Your task to perform on an android device: Clear all items from cart on walmart.com. Add "asus zenbook" to the cart on walmart.com Image 0: 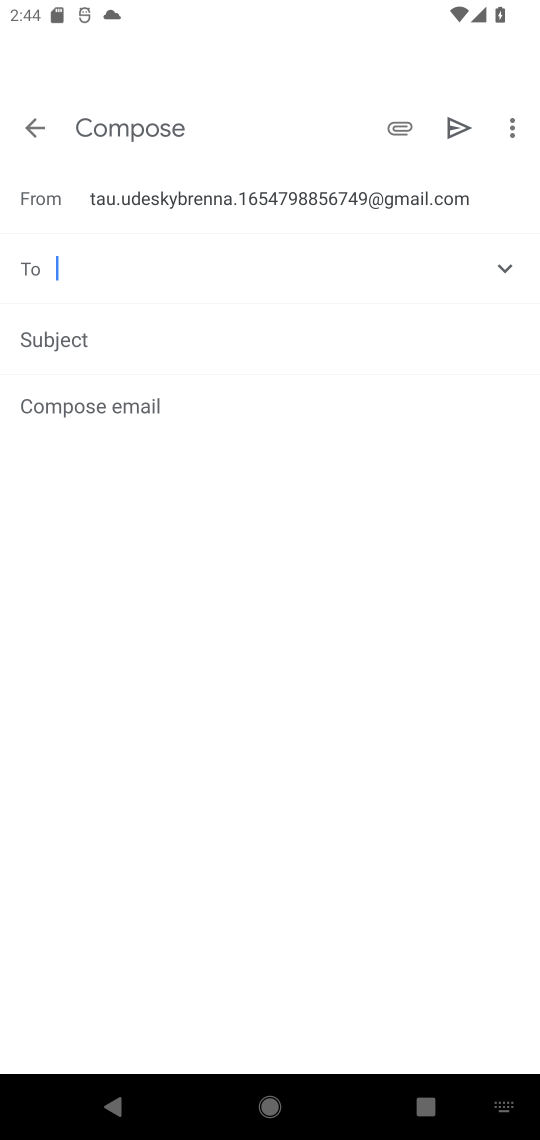
Step 0: press home button
Your task to perform on an android device: Clear all items from cart on walmart.com. Add "asus zenbook" to the cart on walmart.com Image 1: 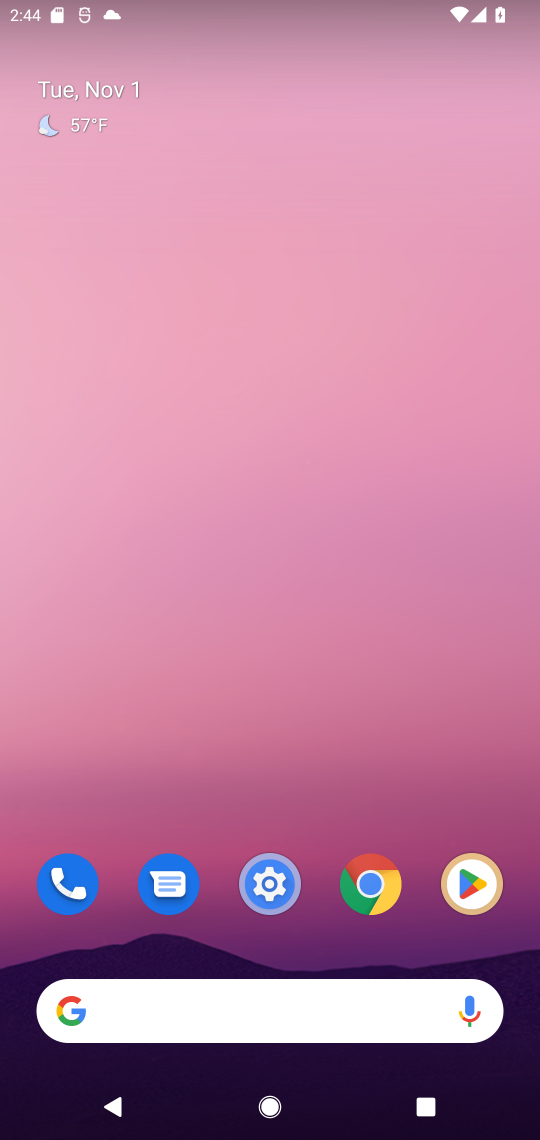
Step 1: click (95, 1003)
Your task to perform on an android device: Clear all items from cart on walmart.com. Add "asus zenbook" to the cart on walmart.com Image 2: 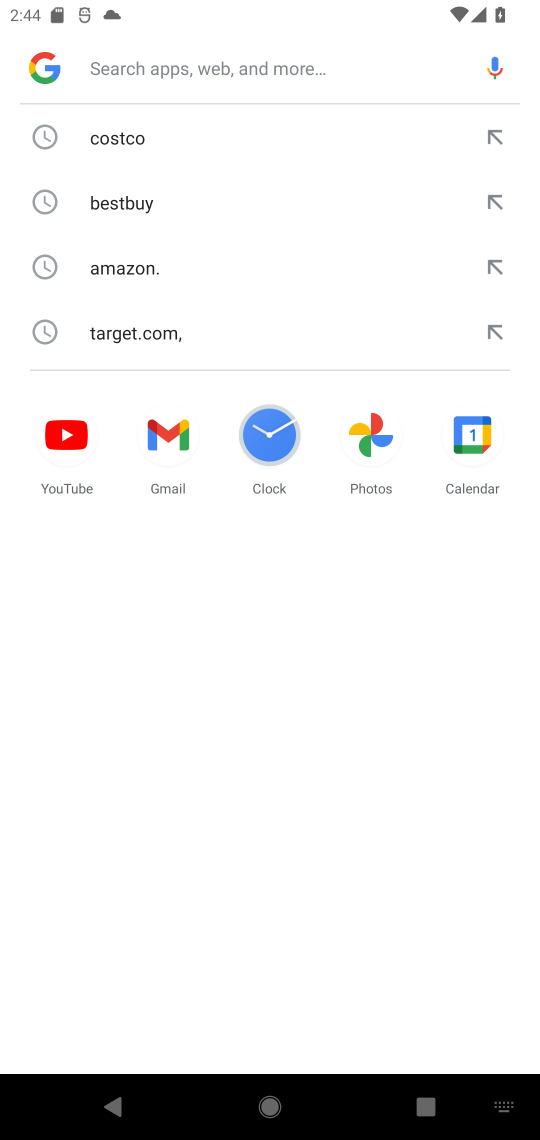
Step 2: type " walmart.com"
Your task to perform on an android device: Clear all items from cart on walmart.com. Add "asus zenbook" to the cart on walmart.com Image 3: 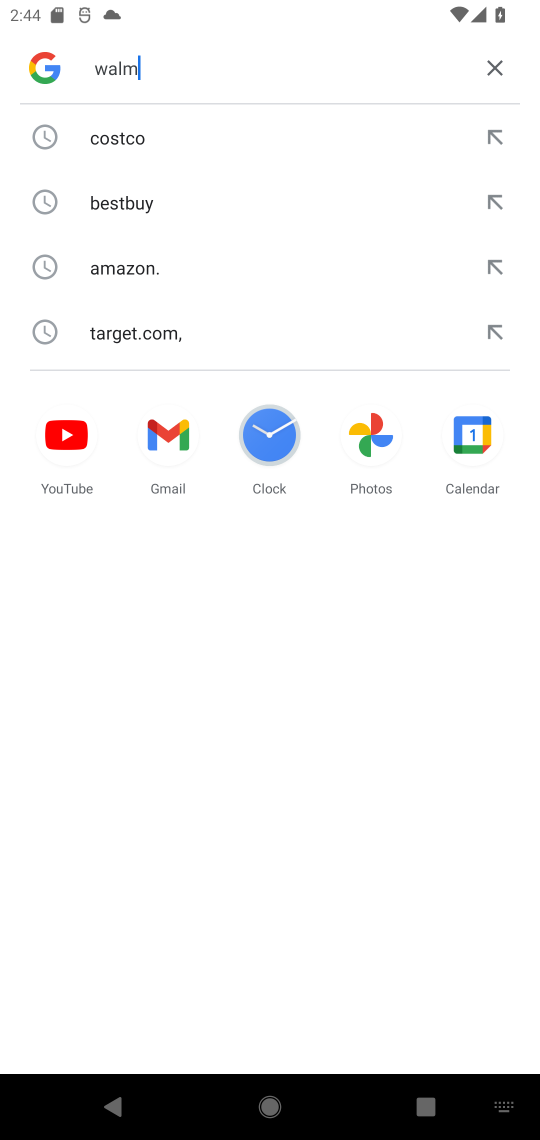
Step 3: press enter
Your task to perform on an android device: Clear all items from cart on walmart.com. Add "asus zenbook" to the cart on walmart.com Image 4: 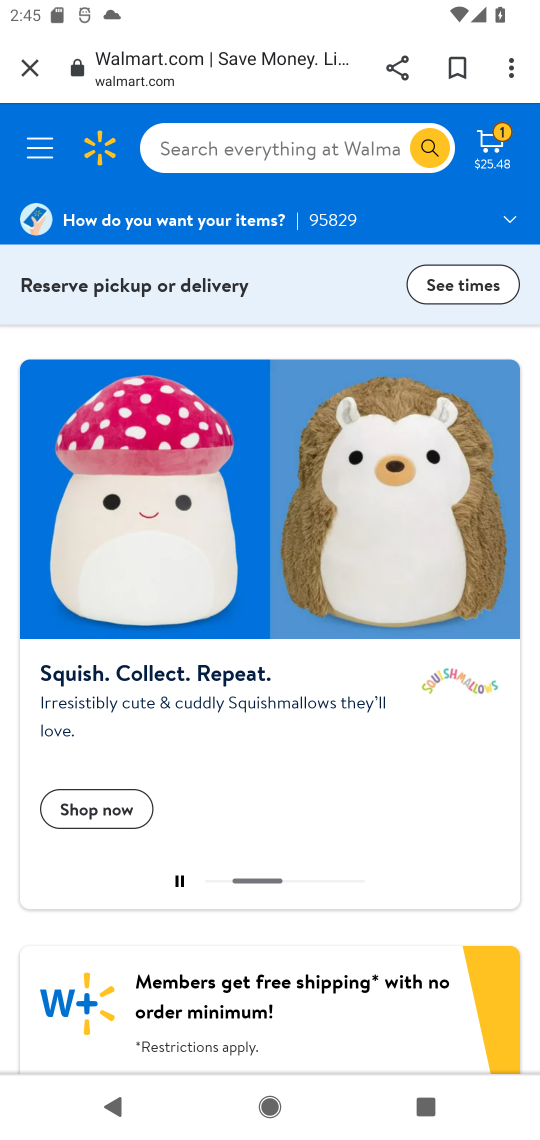
Step 4: click (488, 137)
Your task to perform on an android device: Clear all items from cart on walmart.com. Add "asus zenbook" to the cart on walmart.com Image 5: 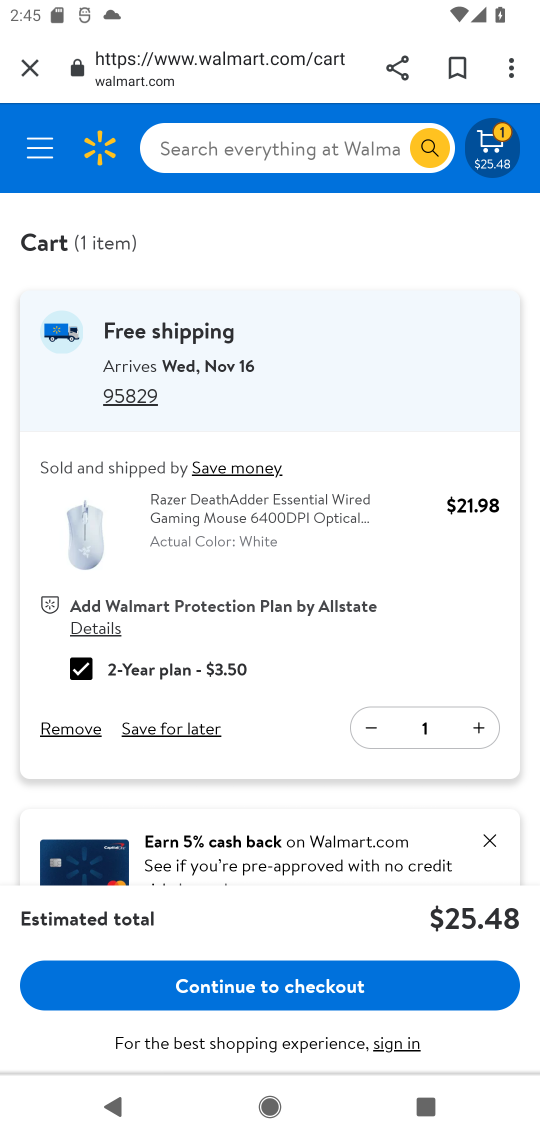
Step 5: click (70, 723)
Your task to perform on an android device: Clear all items from cart on walmart.com. Add "asus zenbook" to the cart on walmart.com Image 6: 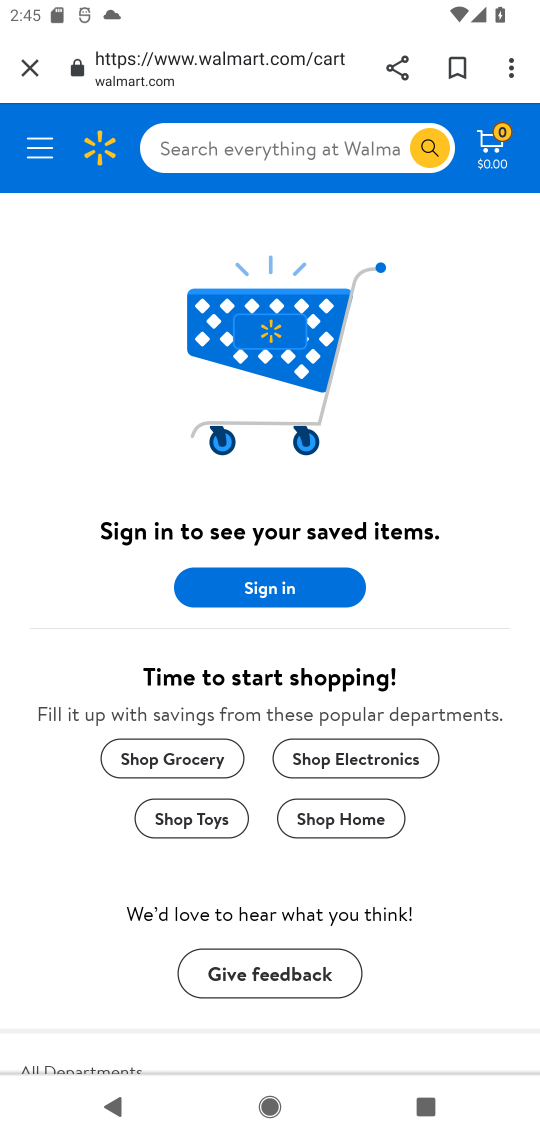
Step 6: click (207, 144)
Your task to perform on an android device: Clear all items from cart on walmart.com. Add "asus zenbook" to the cart on walmart.com Image 7: 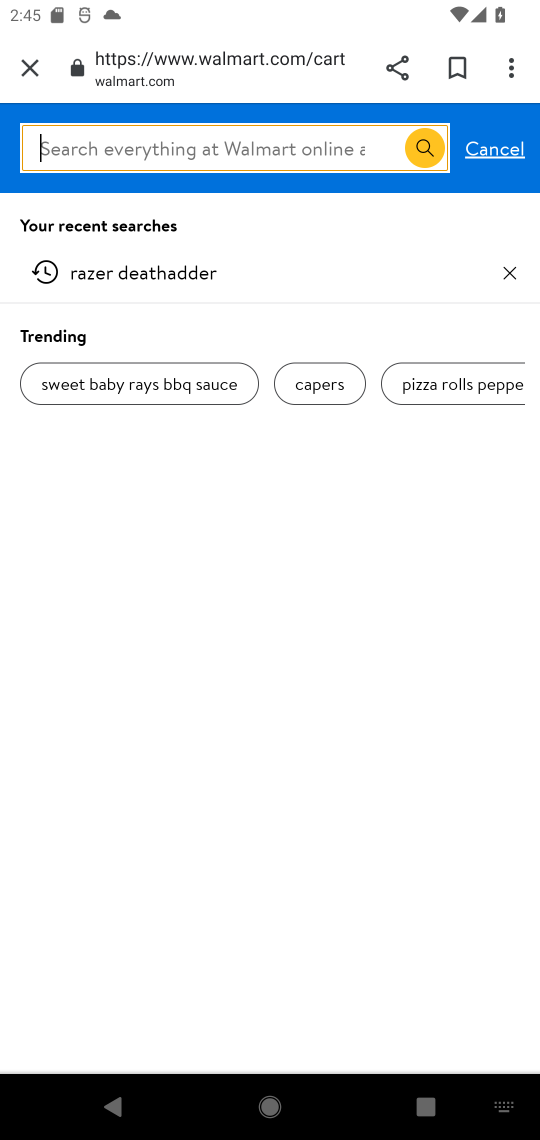
Step 7: type "asus zenbook"
Your task to perform on an android device: Clear all items from cart on walmart.com. Add "asus zenbook" to the cart on walmart.com Image 8: 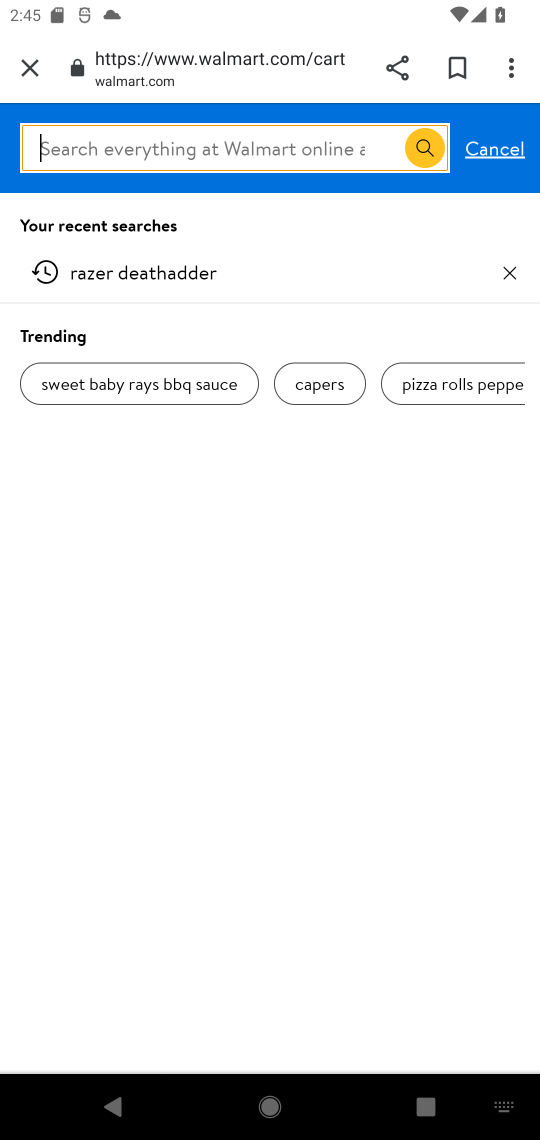
Step 8: press enter
Your task to perform on an android device: Clear all items from cart on walmart.com. Add "asus zenbook" to the cart on walmart.com Image 9: 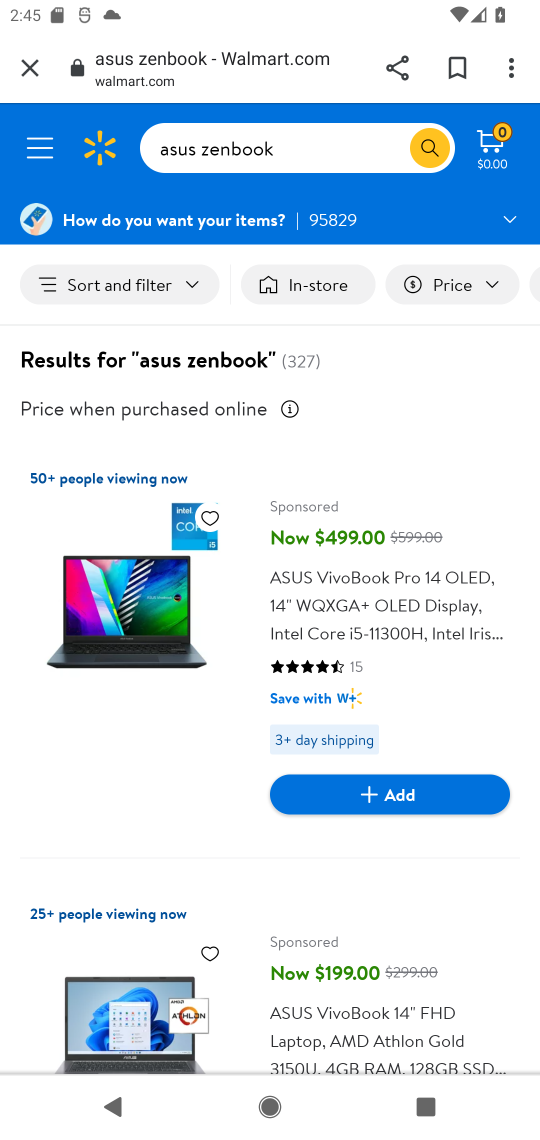
Step 9: drag from (381, 902) to (394, 525)
Your task to perform on an android device: Clear all items from cart on walmart.com. Add "asus zenbook" to the cart on walmart.com Image 10: 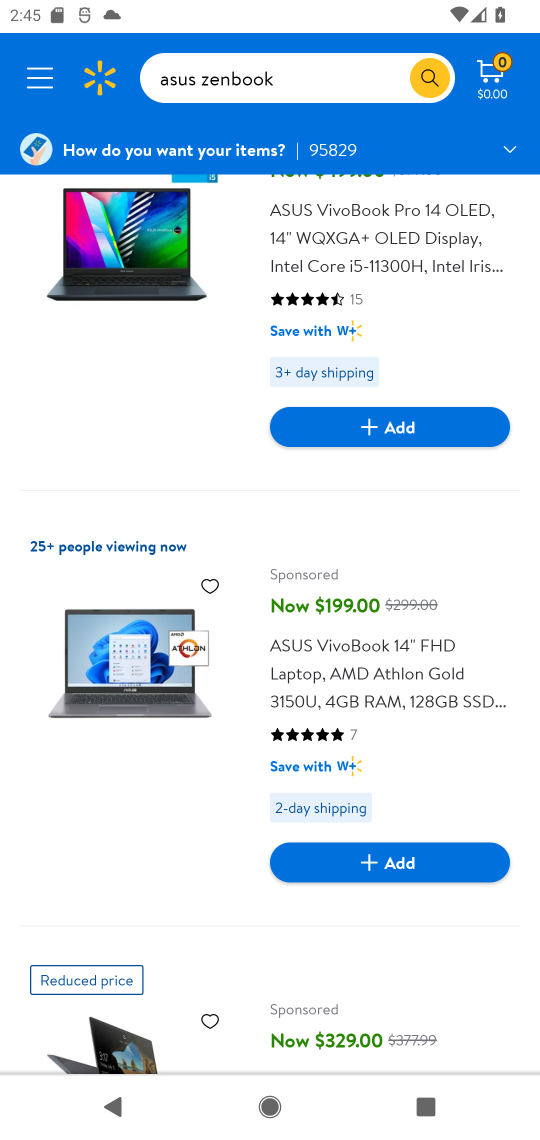
Step 10: drag from (343, 941) to (366, 534)
Your task to perform on an android device: Clear all items from cart on walmart.com. Add "asus zenbook" to the cart on walmart.com Image 11: 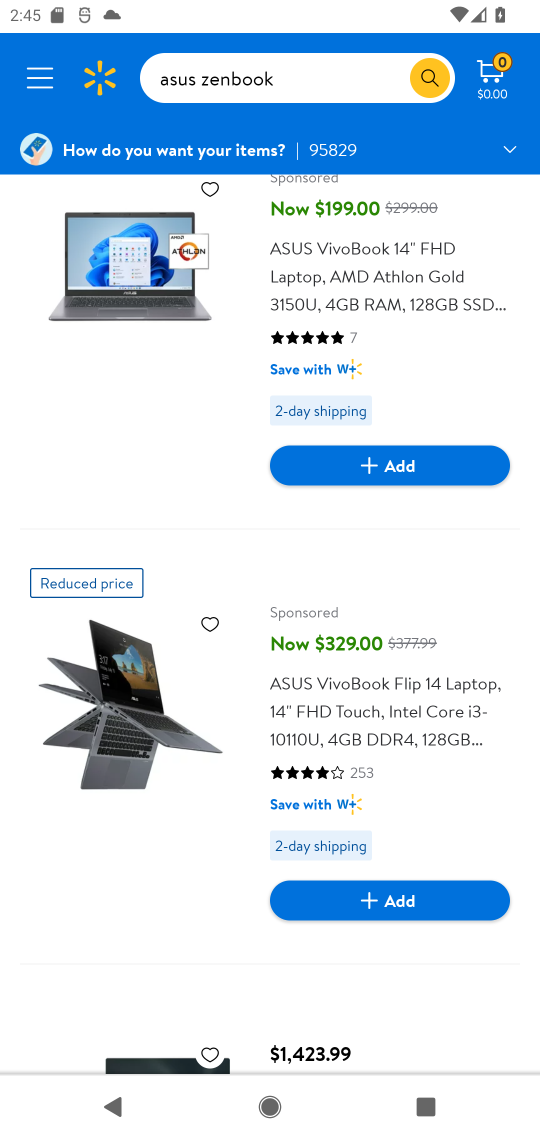
Step 11: drag from (349, 987) to (389, 506)
Your task to perform on an android device: Clear all items from cart on walmart.com. Add "asus zenbook" to the cart on walmart.com Image 12: 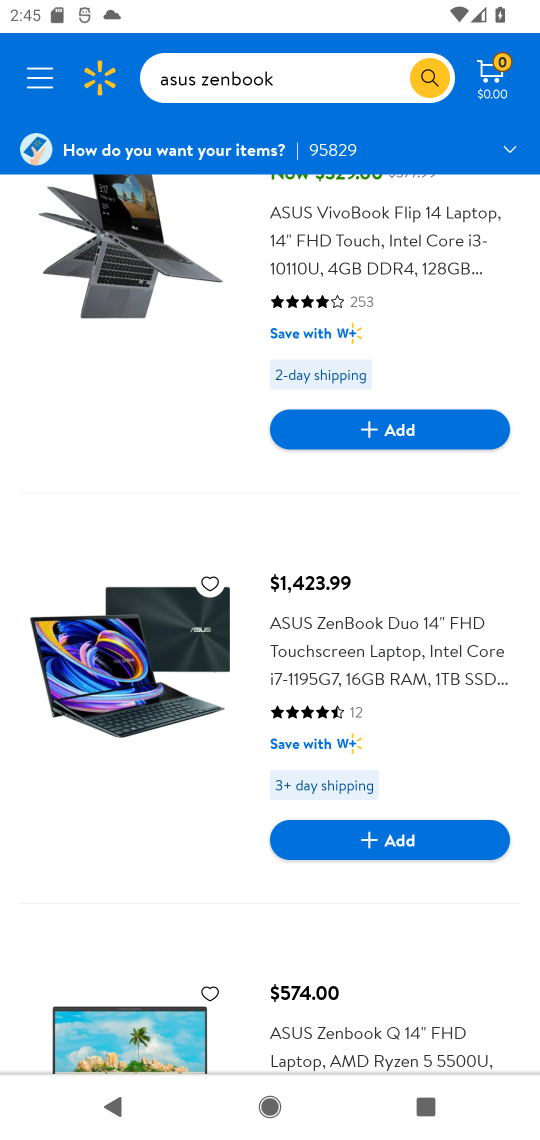
Step 12: click (409, 848)
Your task to perform on an android device: Clear all items from cart on walmart.com. Add "asus zenbook" to the cart on walmart.com Image 13: 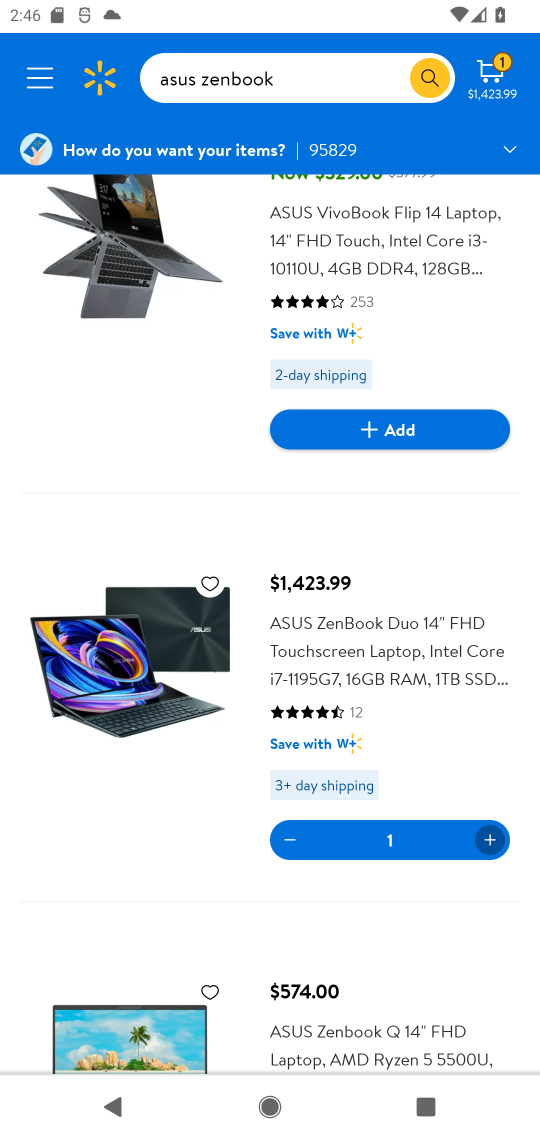
Step 13: task complete